Your task to perform on an android device: Clear the cart on amazon.com. Add usb-c to usb-a to the cart on amazon.com, then select checkout. Image 0: 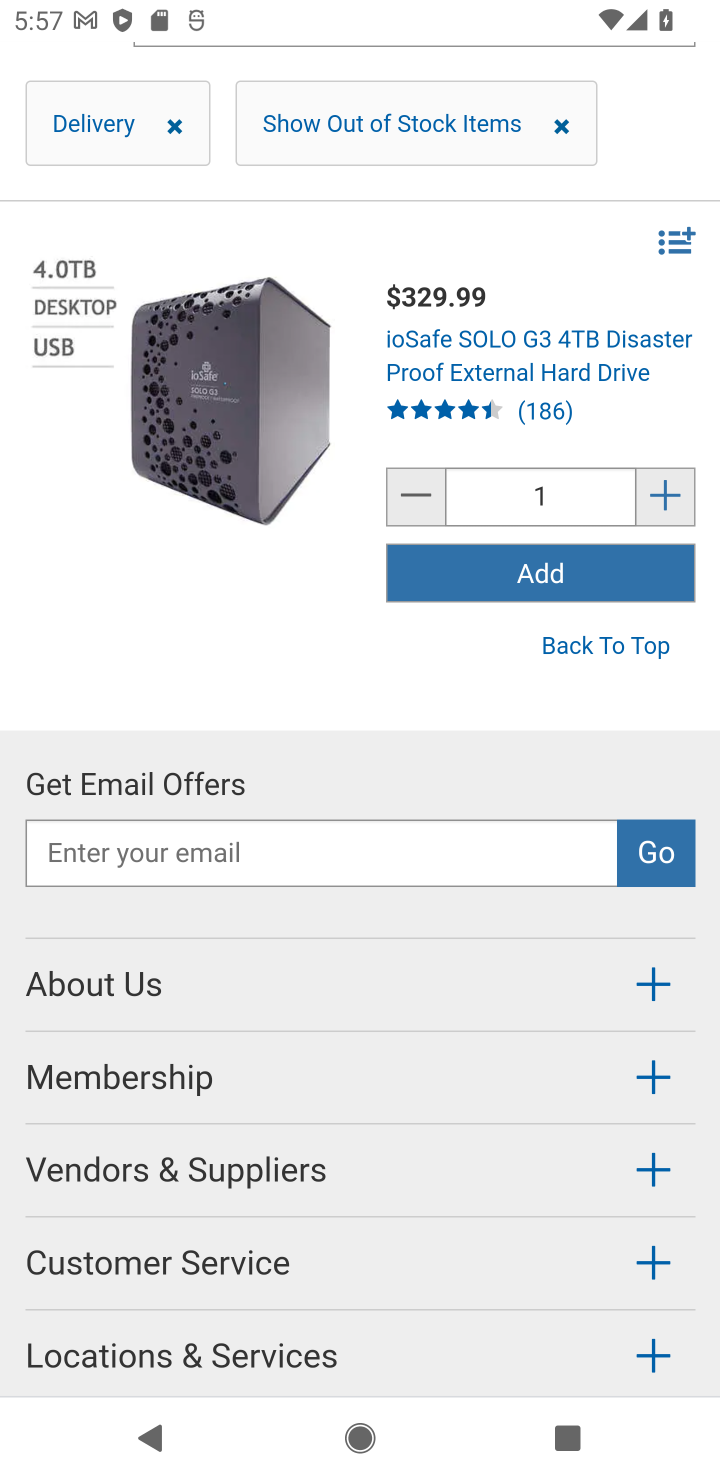
Step 0: drag from (644, 117) to (517, 1426)
Your task to perform on an android device: Clear the cart on amazon.com. Add usb-c to usb-a to the cart on amazon.com, then select checkout. Image 1: 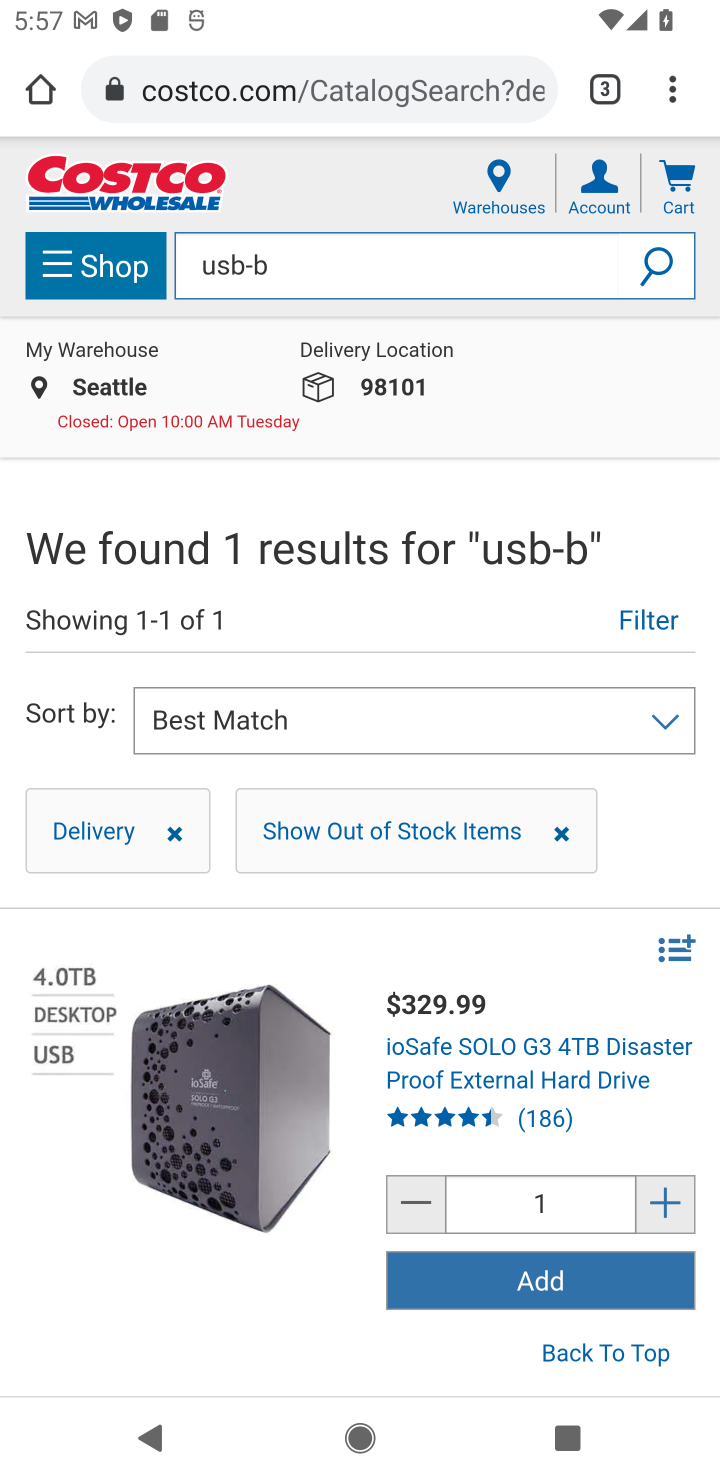
Step 1: click (613, 80)
Your task to perform on an android device: Clear the cart on amazon.com. Add usb-c to usb-a to the cart on amazon.com, then select checkout. Image 2: 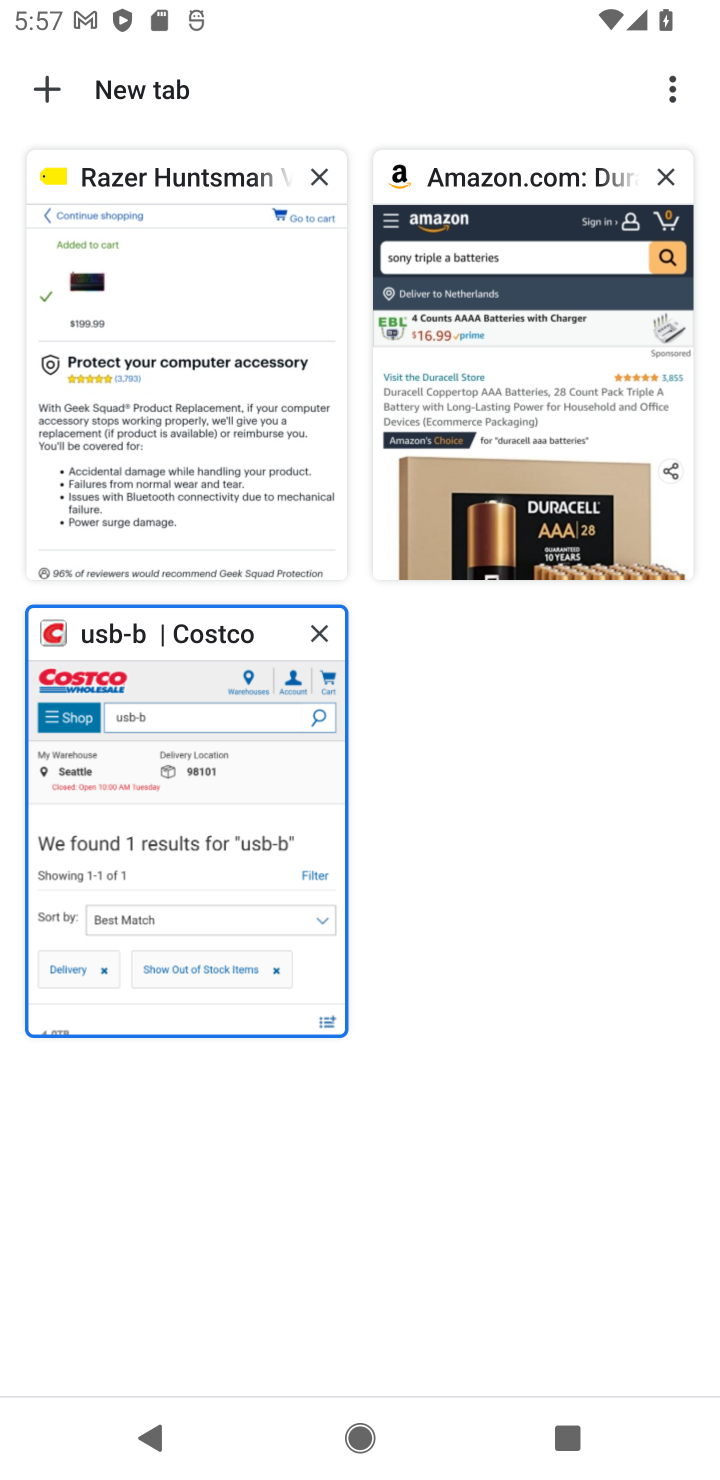
Step 2: click (579, 317)
Your task to perform on an android device: Clear the cart on amazon.com. Add usb-c to usb-a to the cart on amazon.com, then select checkout. Image 3: 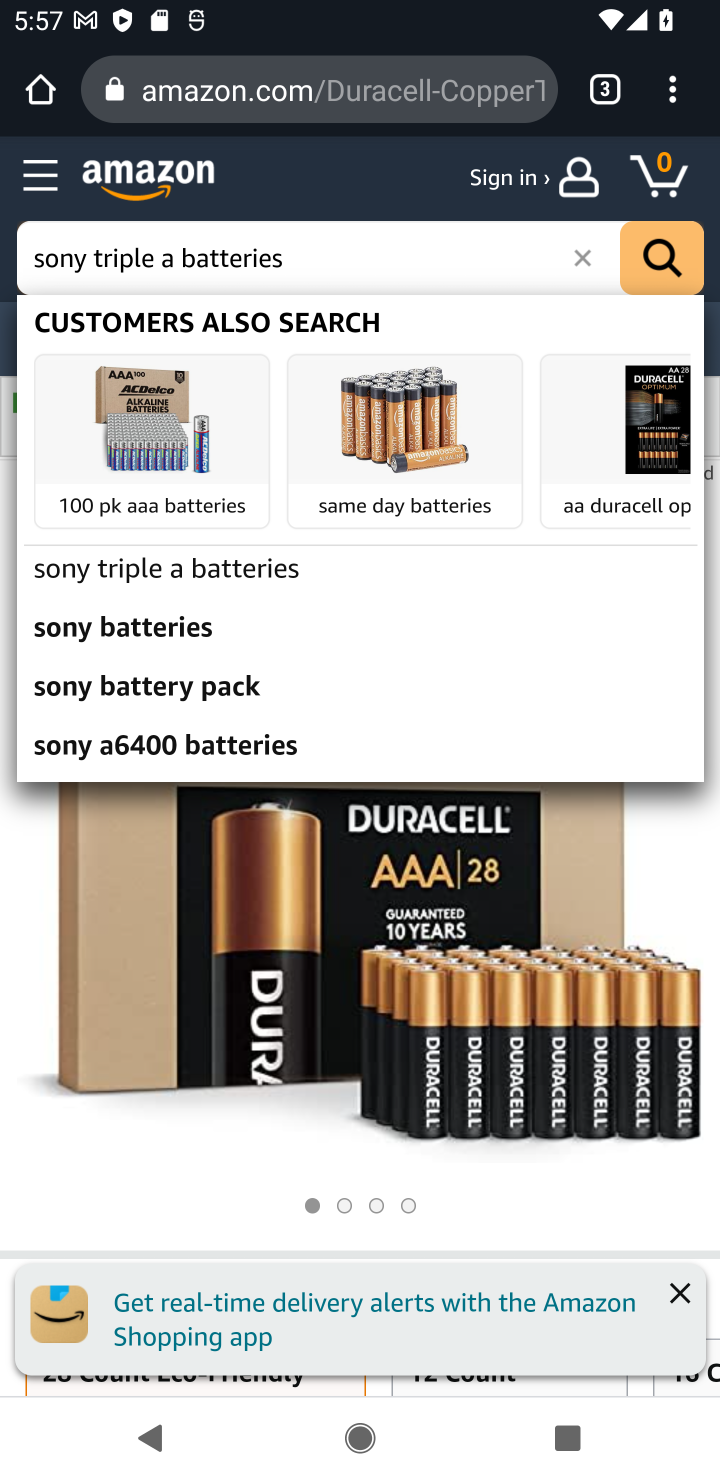
Step 3: click (579, 256)
Your task to perform on an android device: Clear the cart on amazon.com. Add usb-c to usb-a to the cart on amazon.com, then select checkout. Image 4: 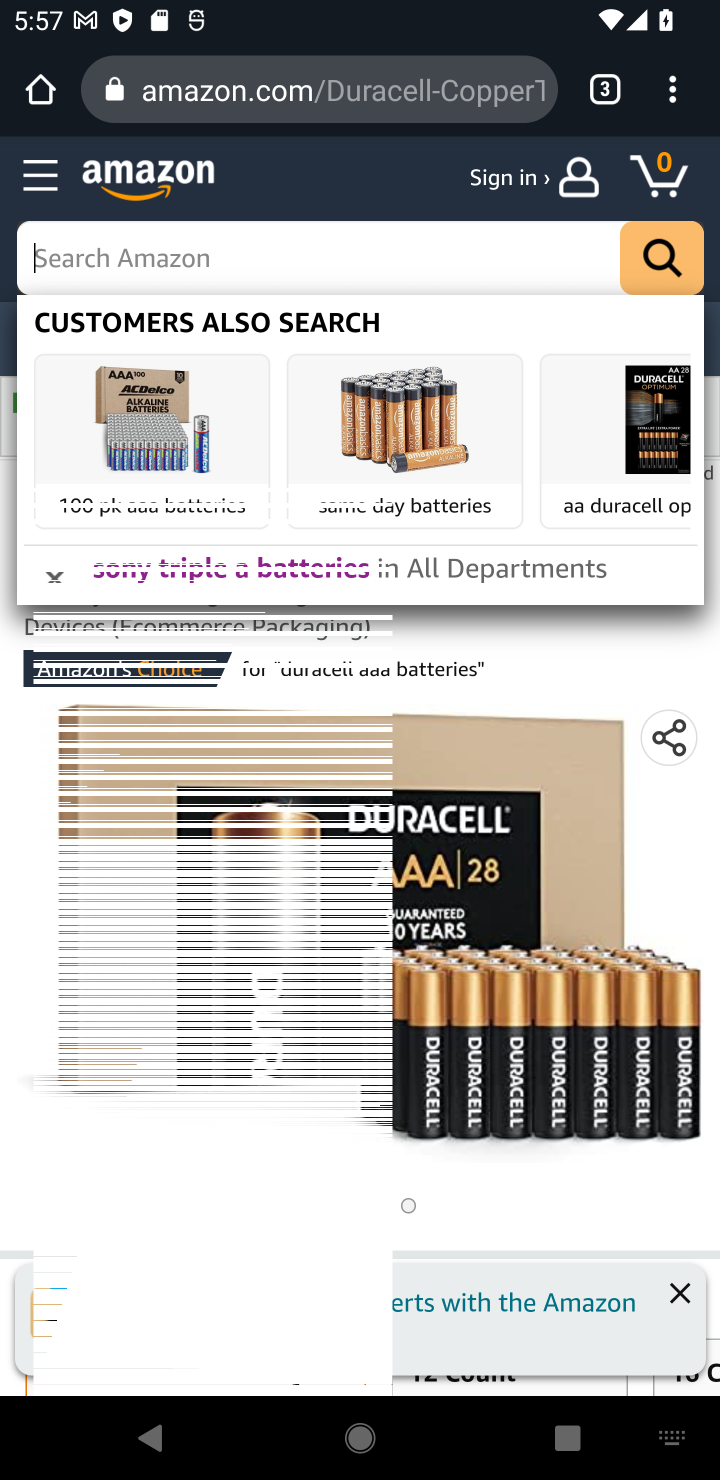
Step 4: type "usb-c to usb-a"
Your task to perform on an android device: Clear the cart on amazon.com. Add usb-c to usb-a to the cart on amazon.com, then select checkout. Image 5: 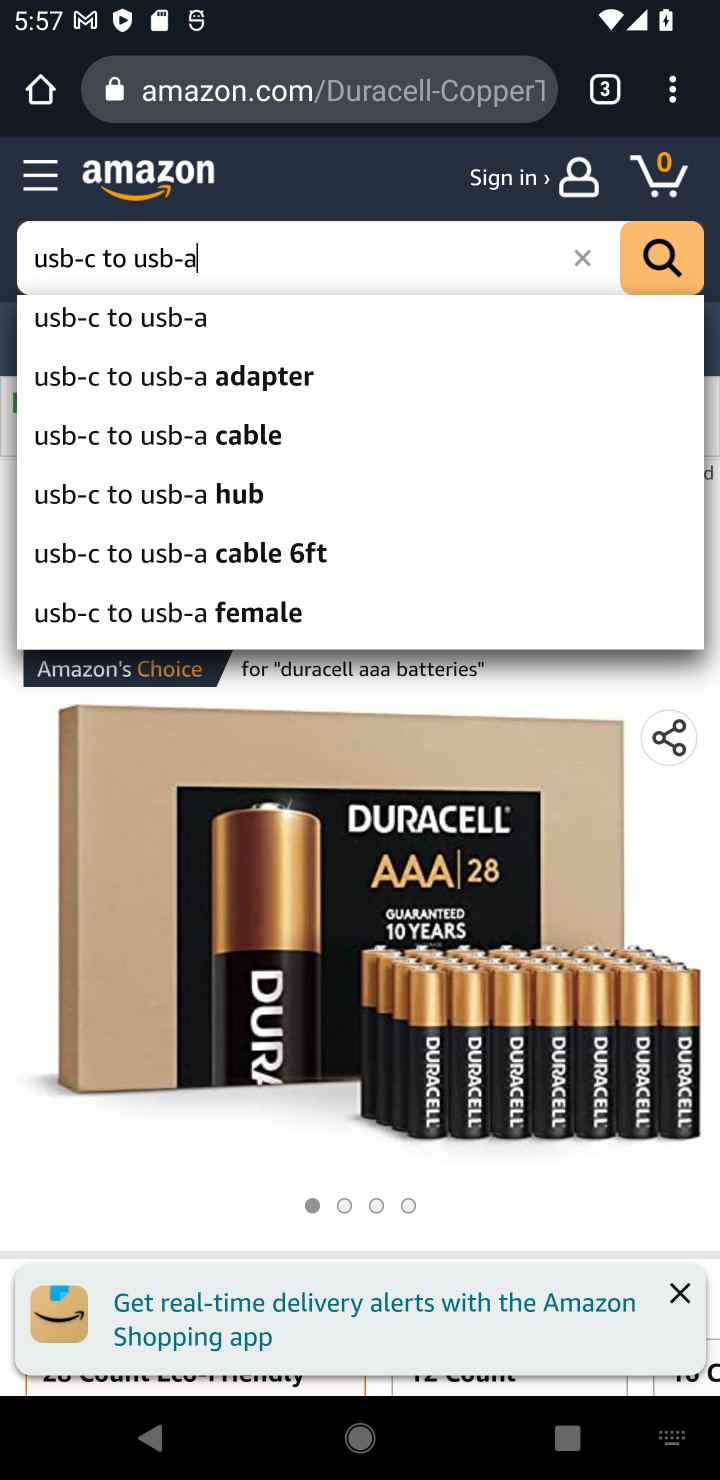
Step 5: click (188, 317)
Your task to perform on an android device: Clear the cart on amazon.com. Add usb-c to usb-a to the cart on amazon.com, then select checkout. Image 6: 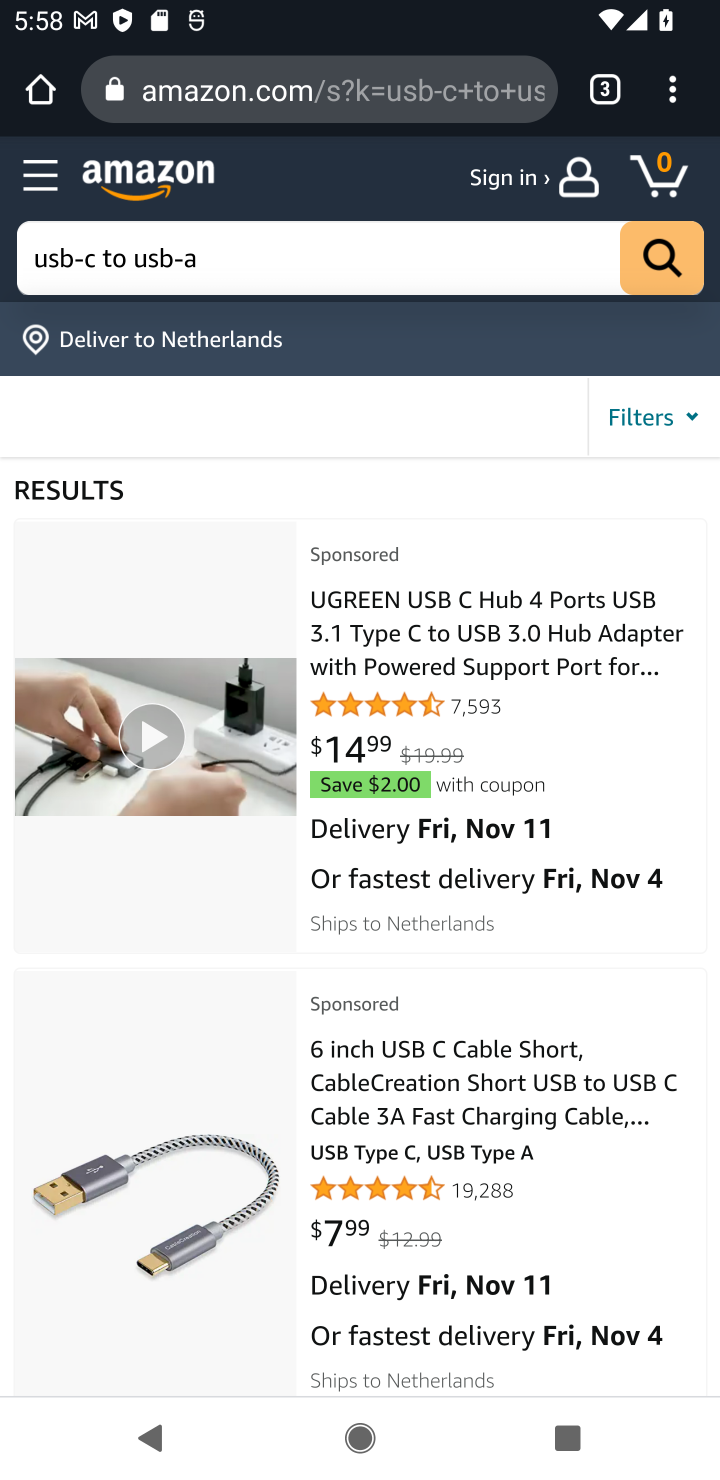
Step 6: click (457, 1078)
Your task to perform on an android device: Clear the cart on amazon.com. Add usb-c to usb-a to the cart on amazon.com, then select checkout. Image 7: 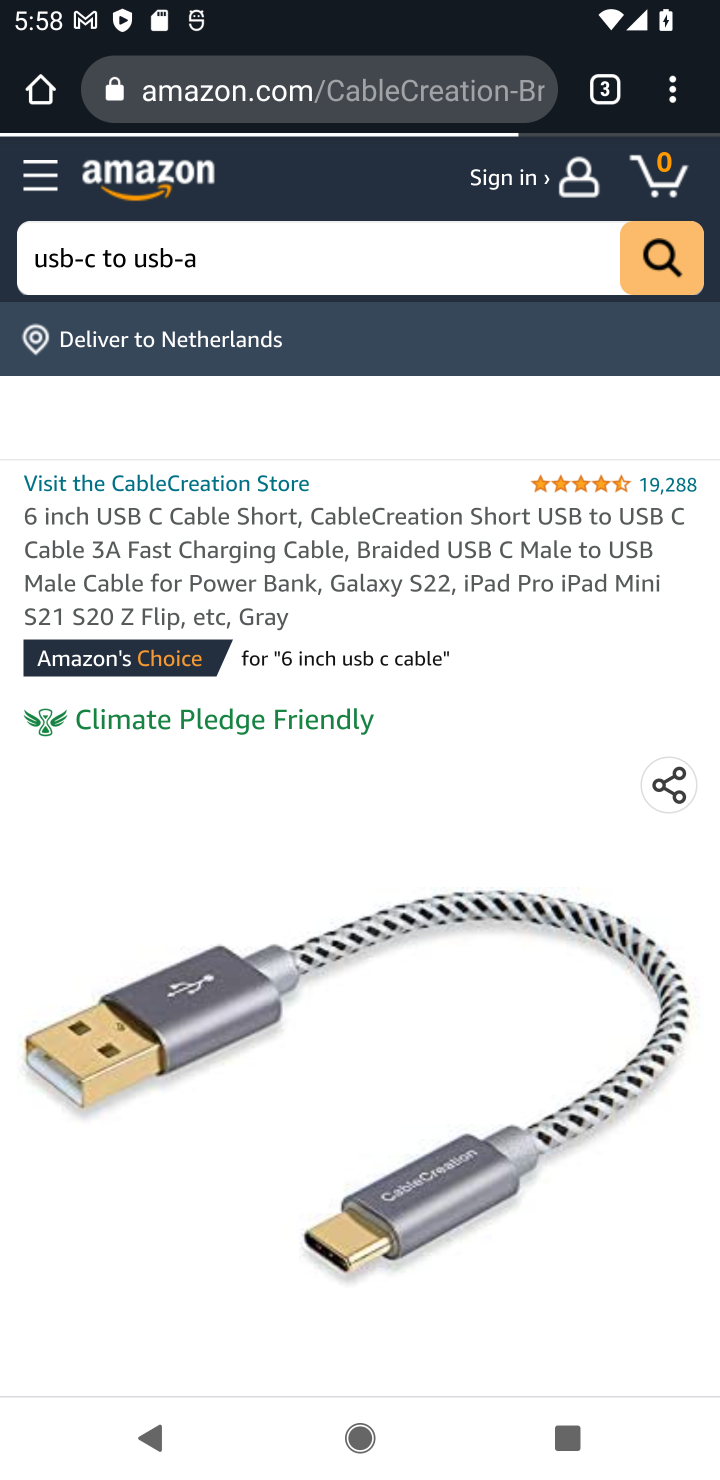
Step 7: drag from (515, 1354) to (561, 131)
Your task to perform on an android device: Clear the cart on amazon.com. Add usb-c to usb-a to the cart on amazon.com, then select checkout. Image 8: 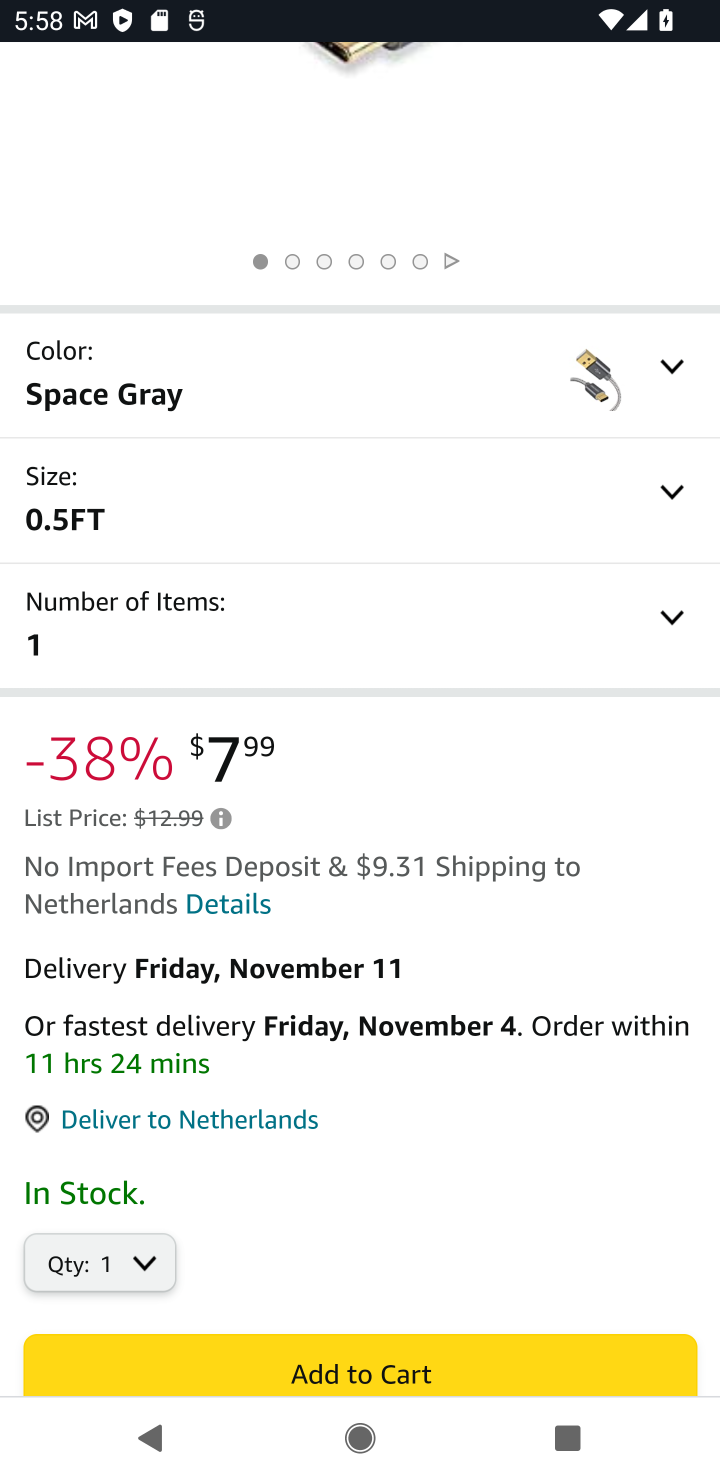
Step 8: click (396, 1352)
Your task to perform on an android device: Clear the cart on amazon.com. Add usb-c to usb-a to the cart on amazon.com, then select checkout. Image 9: 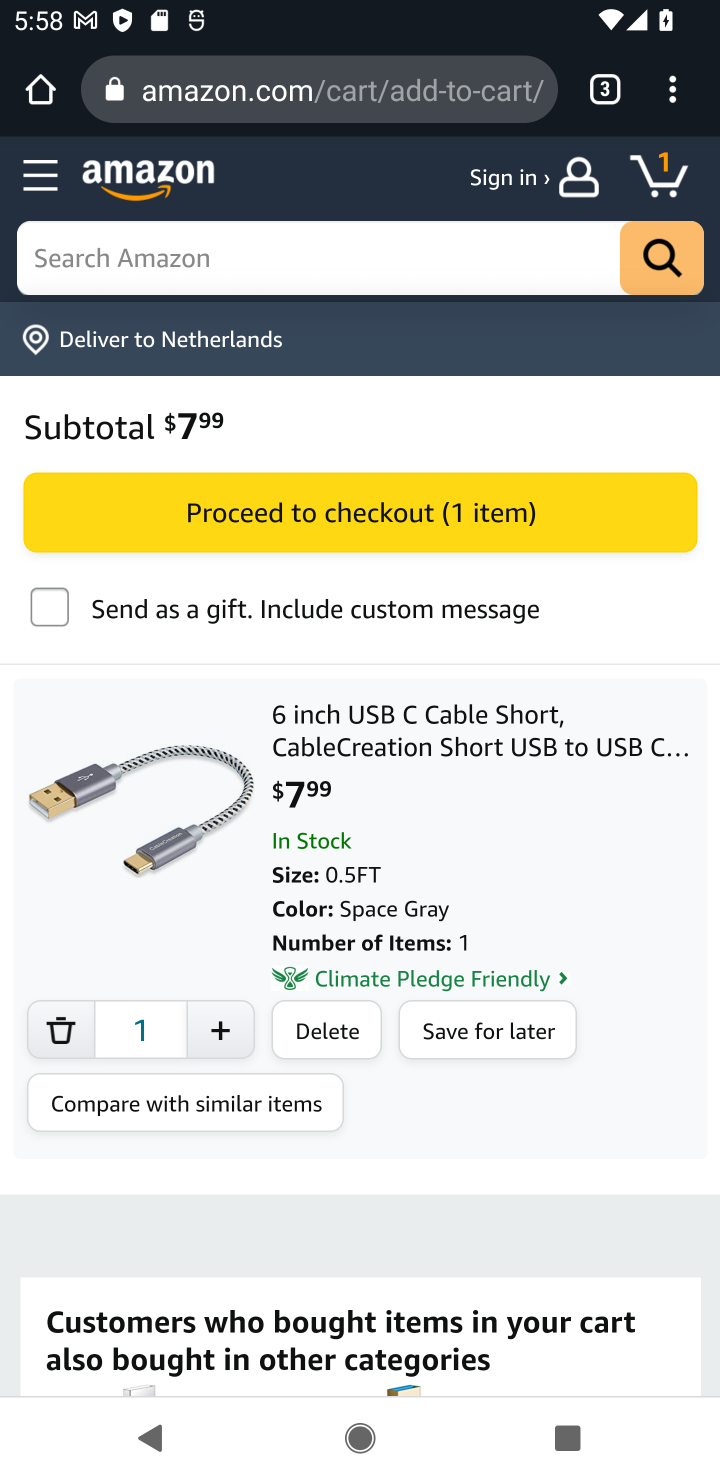
Step 9: click (418, 512)
Your task to perform on an android device: Clear the cart on amazon.com. Add usb-c to usb-a to the cart on amazon.com, then select checkout. Image 10: 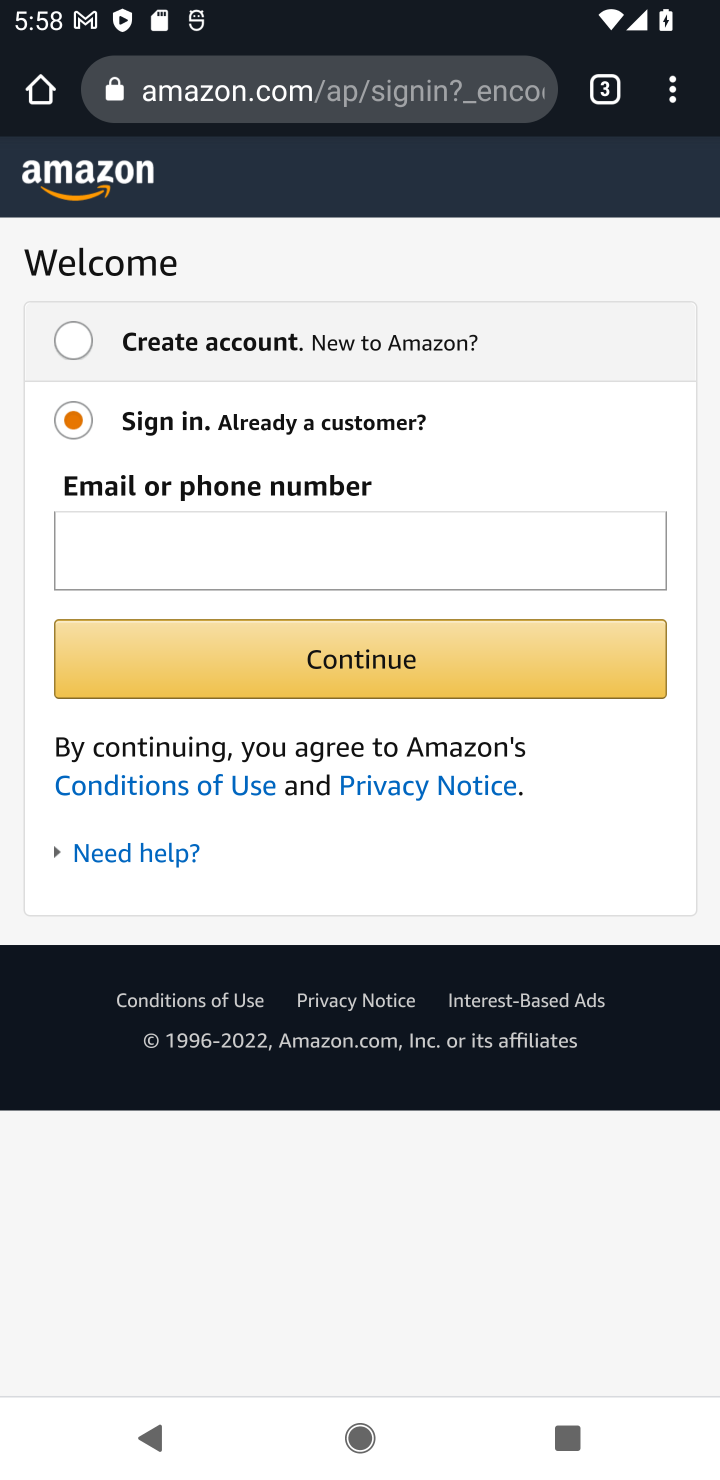
Step 10: task complete